Your task to perform on an android device: Is it going to rain this weekend? Image 0: 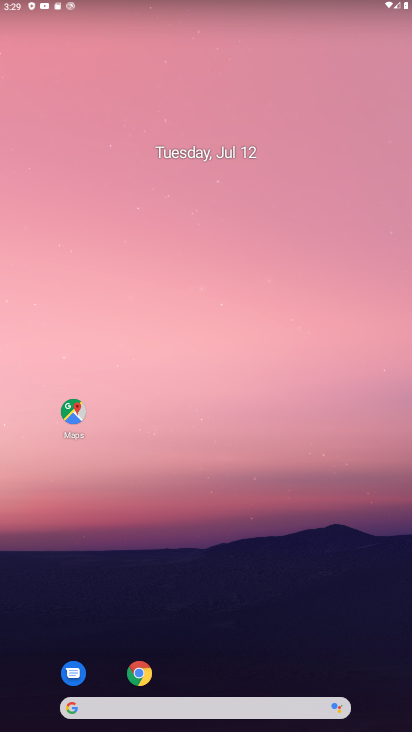
Step 0: drag from (176, 713) to (177, 136)
Your task to perform on an android device: Is it going to rain this weekend? Image 1: 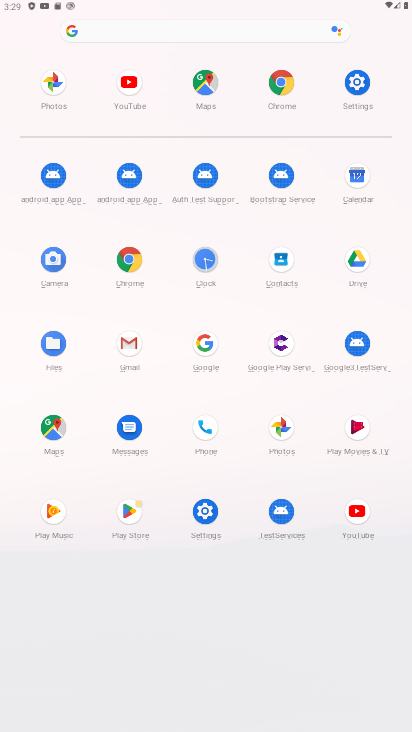
Step 1: click (206, 342)
Your task to perform on an android device: Is it going to rain this weekend? Image 2: 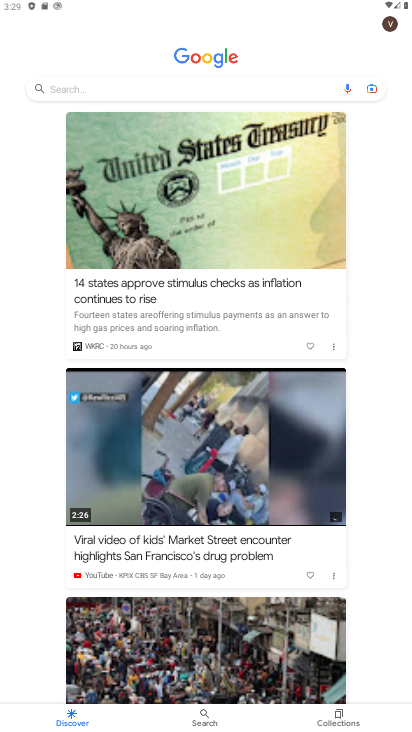
Step 2: click (279, 87)
Your task to perform on an android device: Is it going to rain this weekend? Image 3: 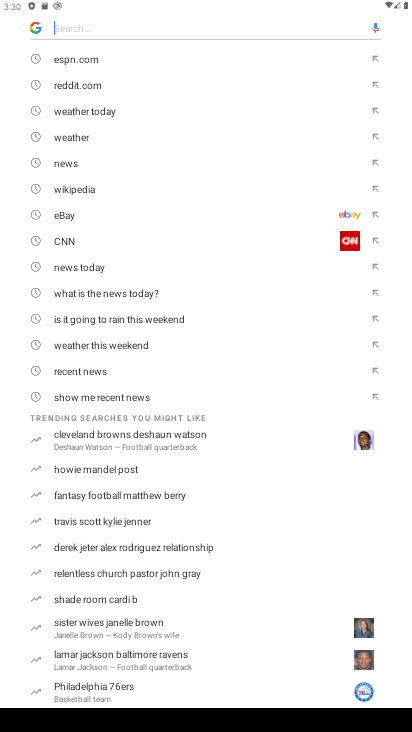
Step 3: type "Is it going to rain this weekend?"
Your task to perform on an android device: Is it going to rain this weekend? Image 4: 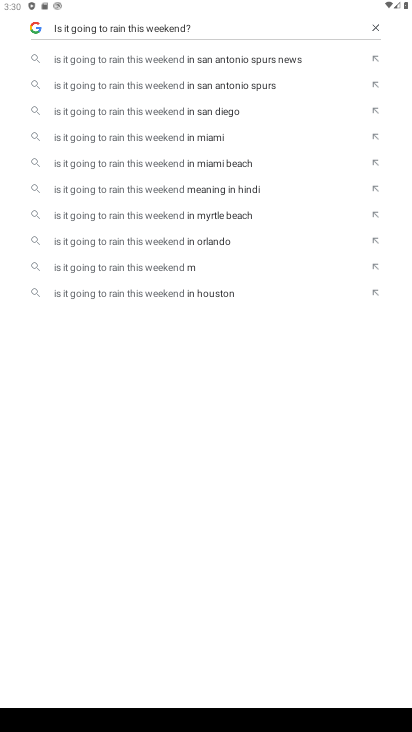
Step 4: click (206, 85)
Your task to perform on an android device: Is it going to rain this weekend? Image 5: 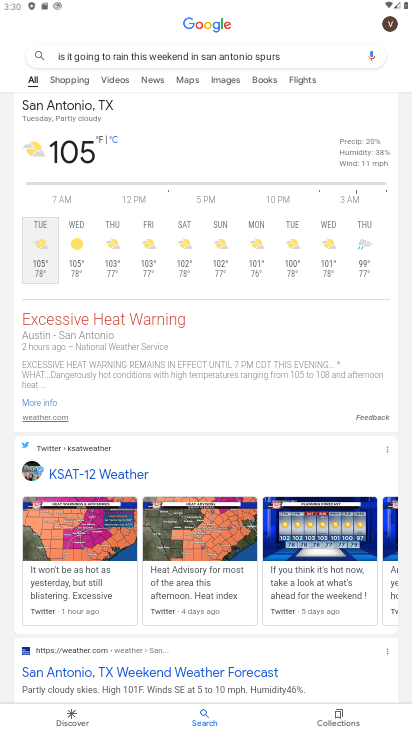
Step 5: task complete